Your task to perform on an android device: read, delete, or share a saved page in the chrome app Image 0: 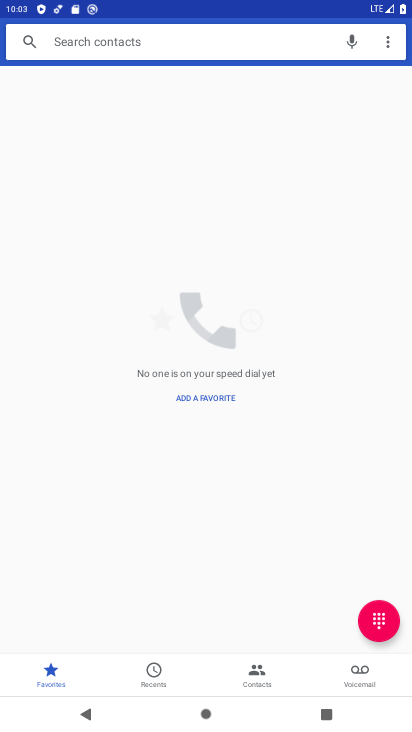
Step 0: press back button
Your task to perform on an android device: read, delete, or share a saved page in the chrome app Image 1: 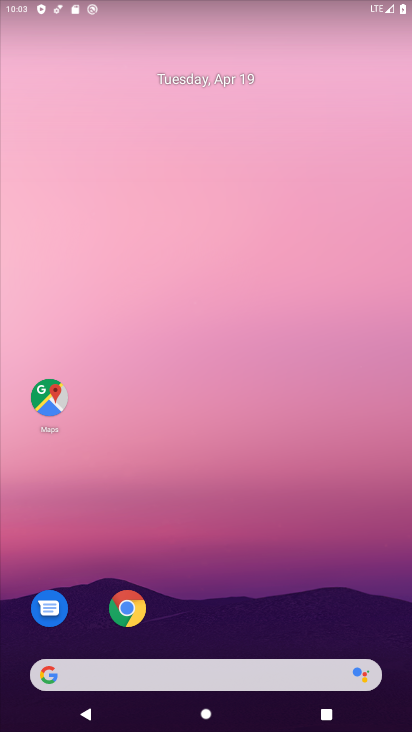
Step 1: click (130, 606)
Your task to perform on an android device: read, delete, or share a saved page in the chrome app Image 2: 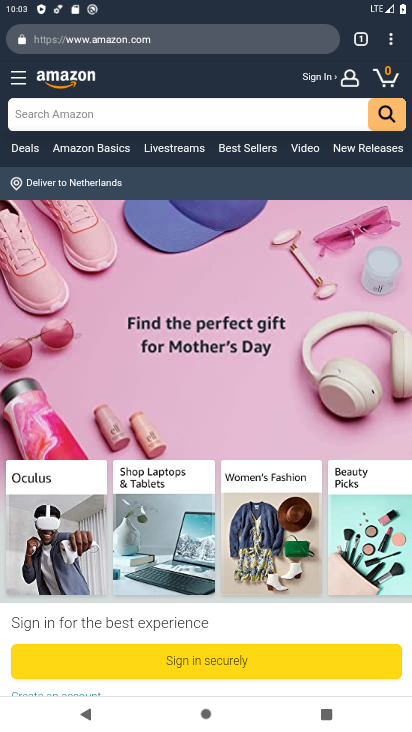
Step 2: click (387, 40)
Your task to perform on an android device: read, delete, or share a saved page in the chrome app Image 3: 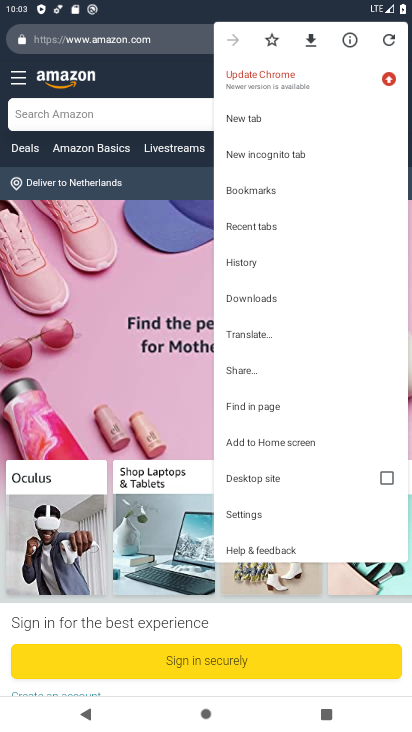
Step 3: click (246, 295)
Your task to perform on an android device: read, delete, or share a saved page in the chrome app Image 4: 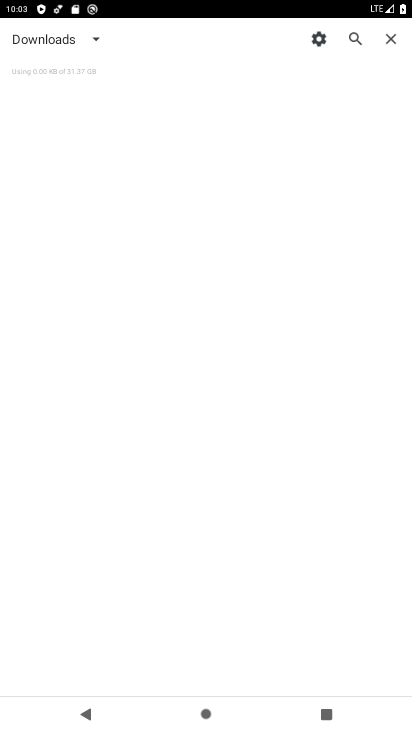
Step 4: task complete